Your task to perform on an android device: Go to display settings Image 0: 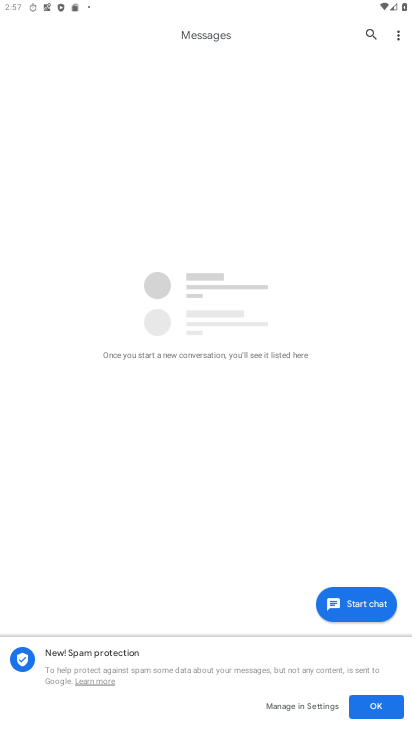
Step 0: press home button
Your task to perform on an android device: Go to display settings Image 1: 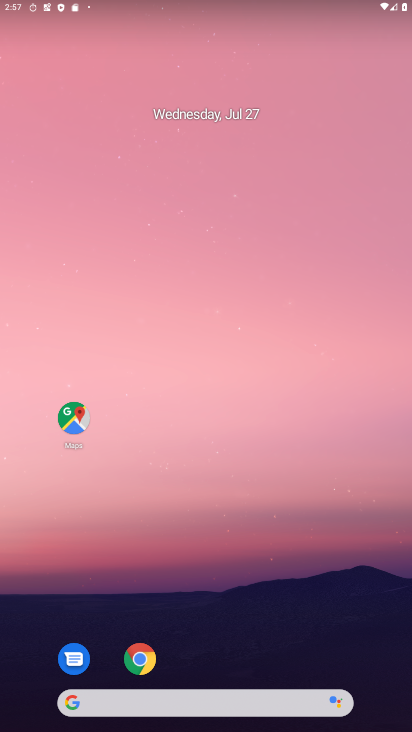
Step 1: drag from (225, 729) to (199, 140)
Your task to perform on an android device: Go to display settings Image 2: 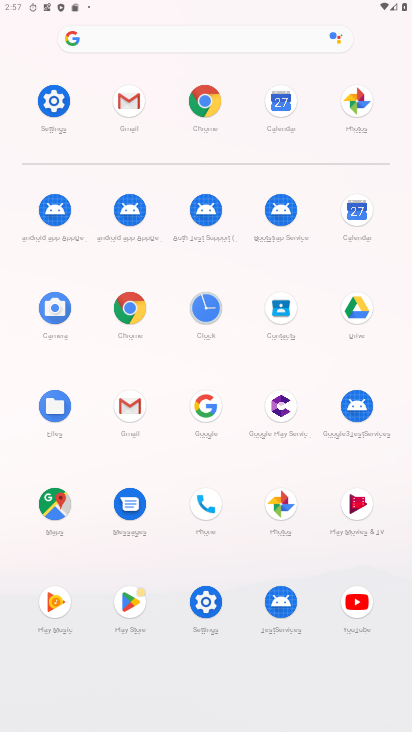
Step 2: click (58, 104)
Your task to perform on an android device: Go to display settings Image 3: 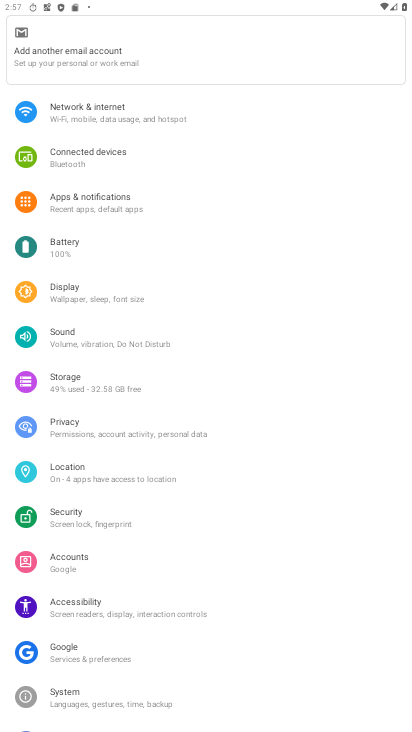
Step 3: click (68, 294)
Your task to perform on an android device: Go to display settings Image 4: 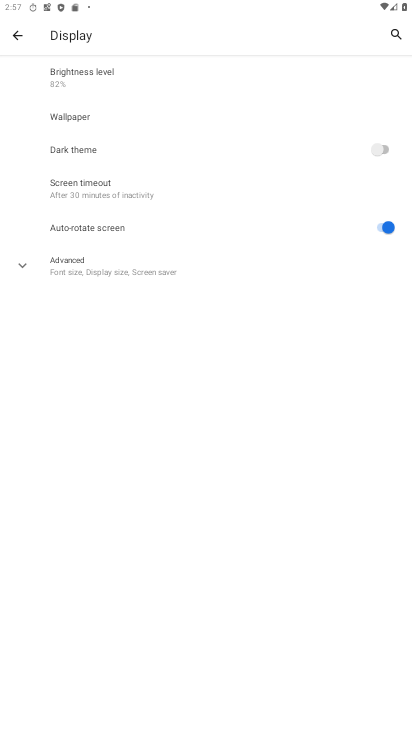
Step 4: task complete